Your task to perform on an android device: turn off translation in the chrome app Image 0: 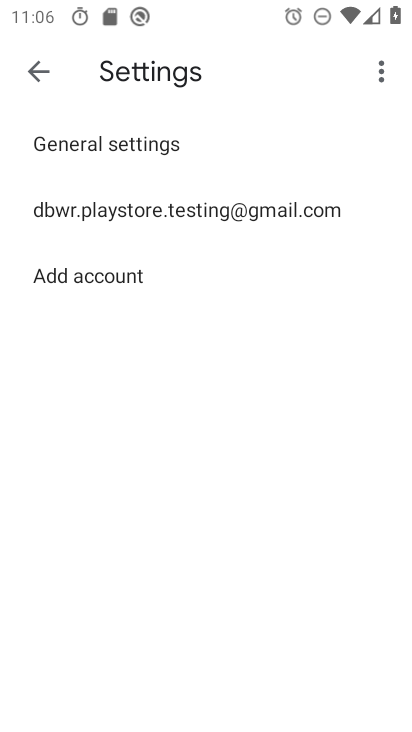
Step 0: press home button
Your task to perform on an android device: turn off translation in the chrome app Image 1: 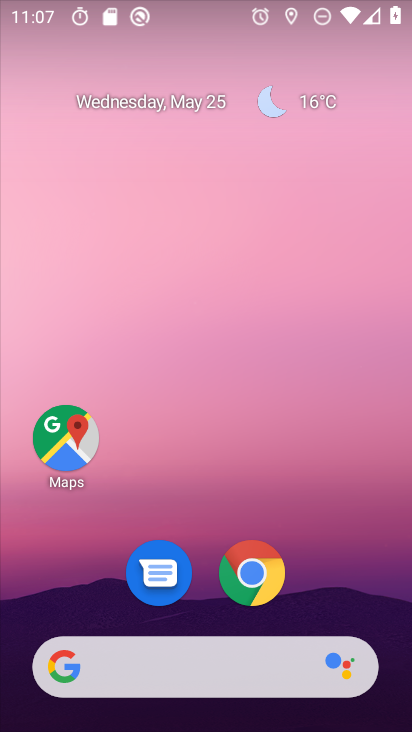
Step 1: click (259, 576)
Your task to perform on an android device: turn off translation in the chrome app Image 2: 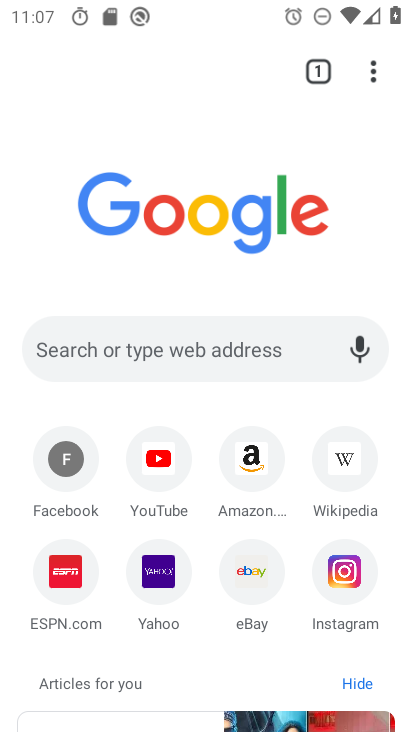
Step 2: click (373, 75)
Your task to perform on an android device: turn off translation in the chrome app Image 3: 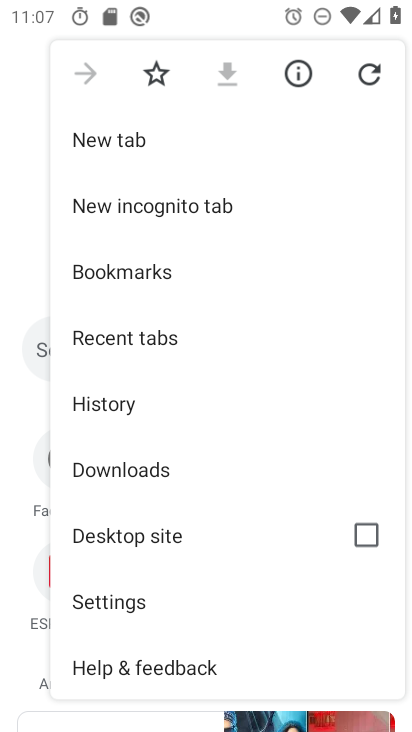
Step 3: click (132, 603)
Your task to perform on an android device: turn off translation in the chrome app Image 4: 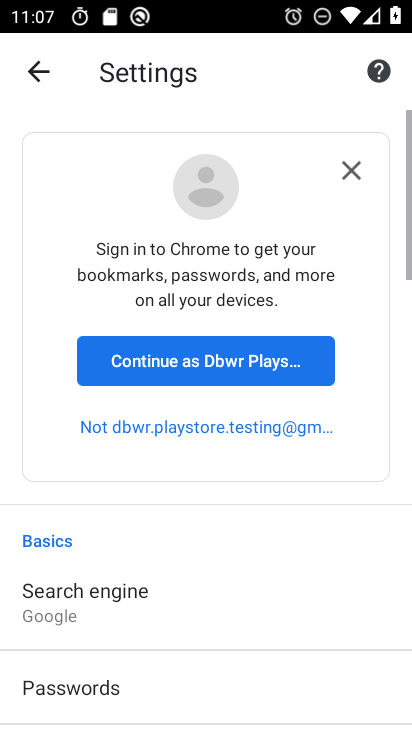
Step 4: drag from (235, 600) to (229, 111)
Your task to perform on an android device: turn off translation in the chrome app Image 5: 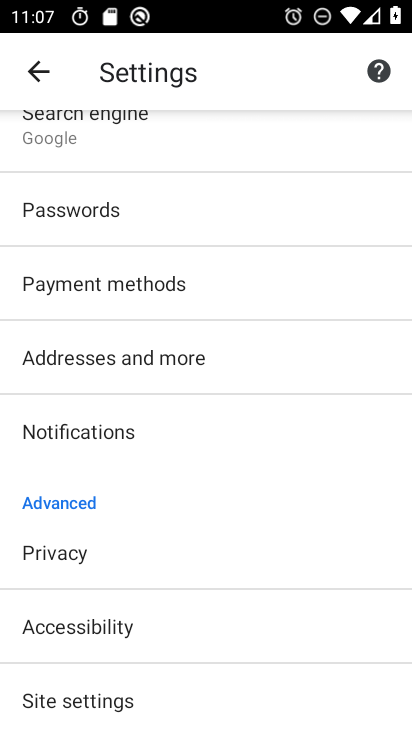
Step 5: drag from (184, 522) to (189, 246)
Your task to perform on an android device: turn off translation in the chrome app Image 6: 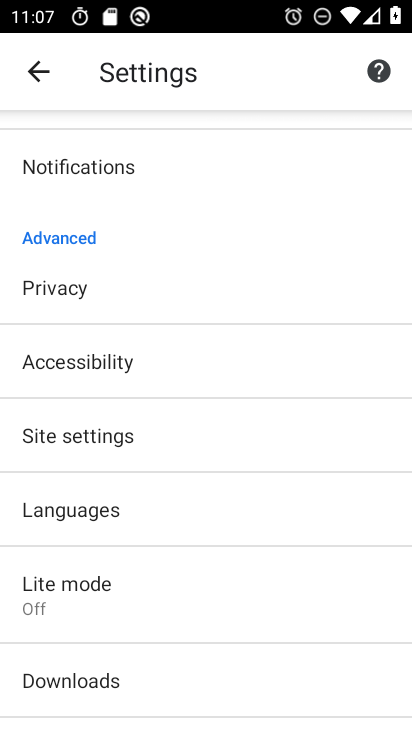
Step 6: click (77, 515)
Your task to perform on an android device: turn off translation in the chrome app Image 7: 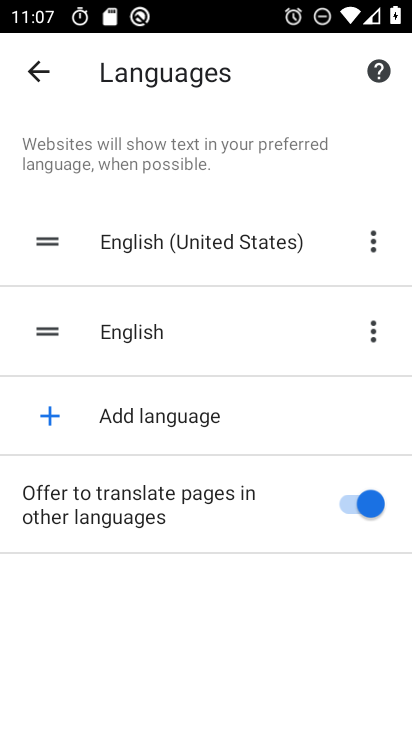
Step 7: click (376, 505)
Your task to perform on an android device: turn off translation in the chrome app Image 8: 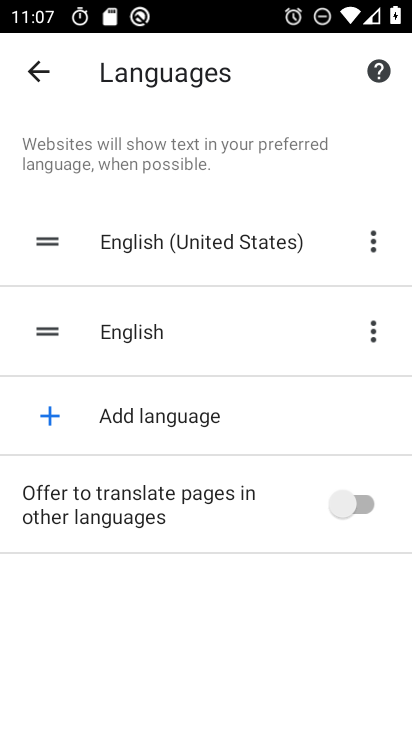
Step 8: task complete